Your task to perform on an android device: toggle notification dots Image 0: 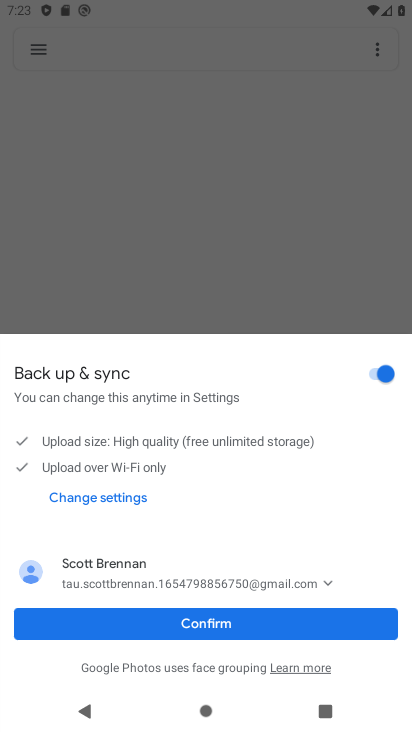
Step 0: press home button
Your task to perform on an android device: toggle notification dots Image 1: 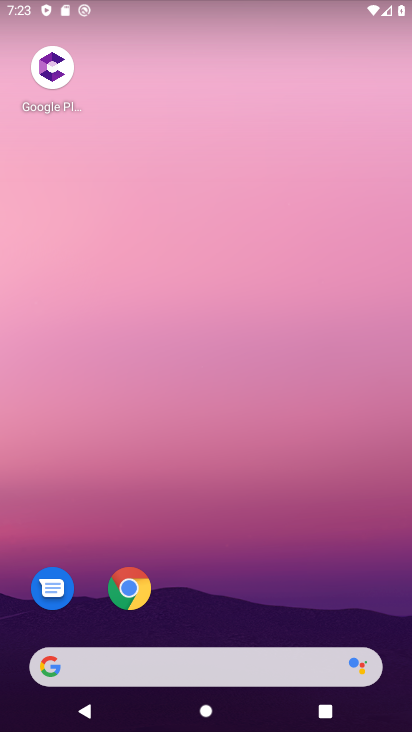
Step 1: drag from (252, 618) to (249, 310)
Your task to perform on an android device: toggle notification dots Image 2: 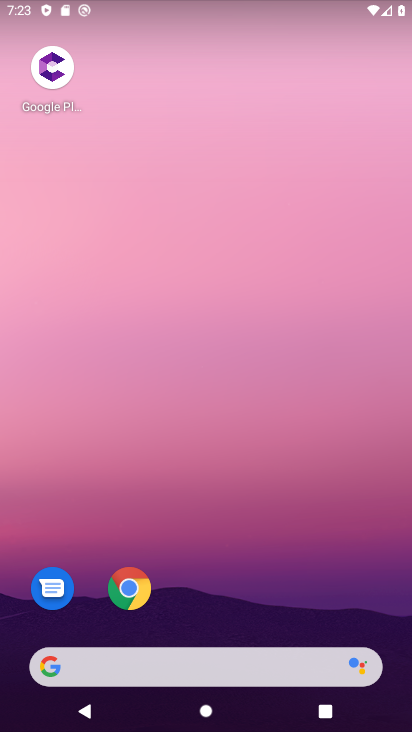
Step 2: drag from (228, 561) to (232, 433)
Your task to perform on an android device: toggle notification dots Image 3: 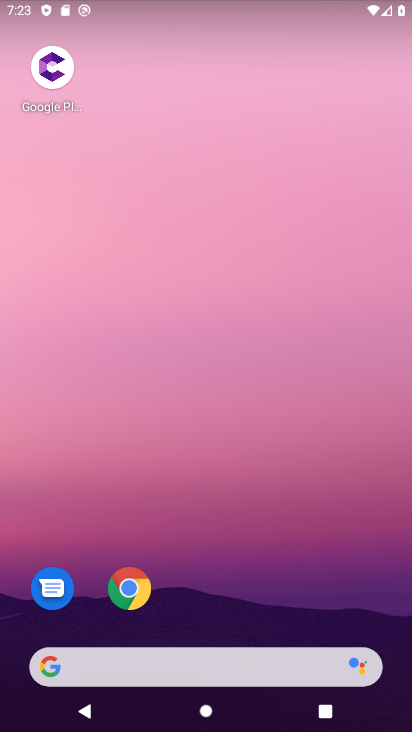
Step 3: drag from (264, 637) to (280, 175)
Your task to perform on an android device: toggle notification dots Image 4: 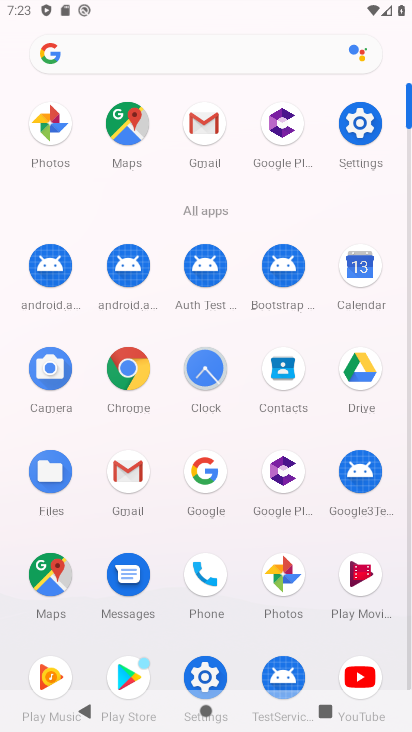
Step 4: click (368, 110)
Your task to perform on an android device: toggle notification dots Image 5: 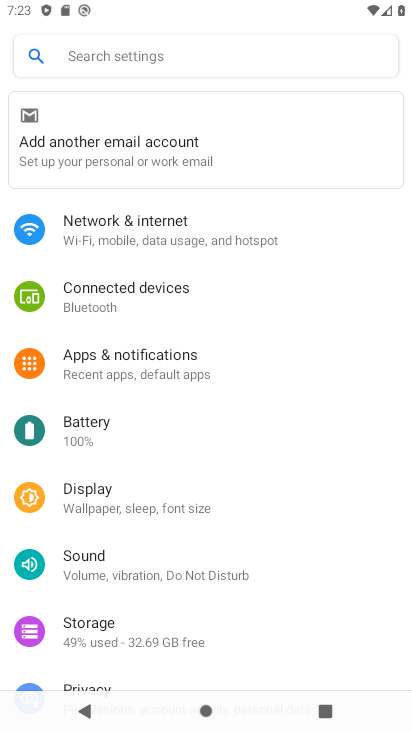
Step 5: click (205, 41)
Your task to perform on an android device: toggle notification dots Image 6: 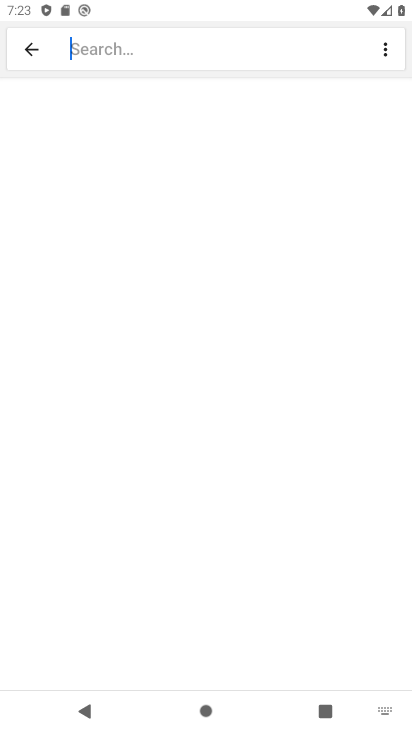
Step 6: type " notification dot "
Your task to perform on an android device: toggle notification dots Image 7: 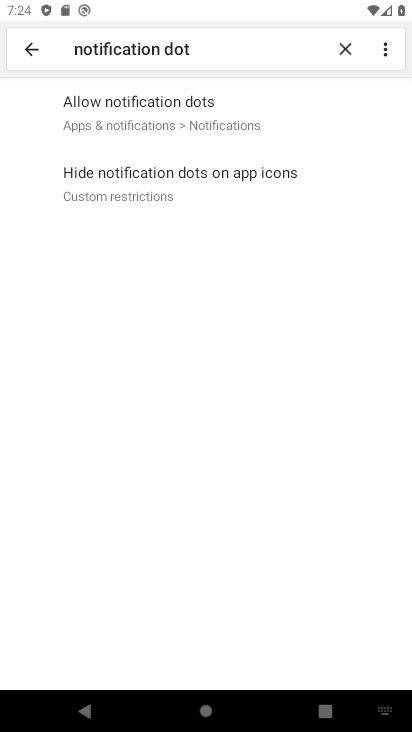
Step 7: click (148, 105)
Your task to perform on an android device: toggle notification dots Image 8: 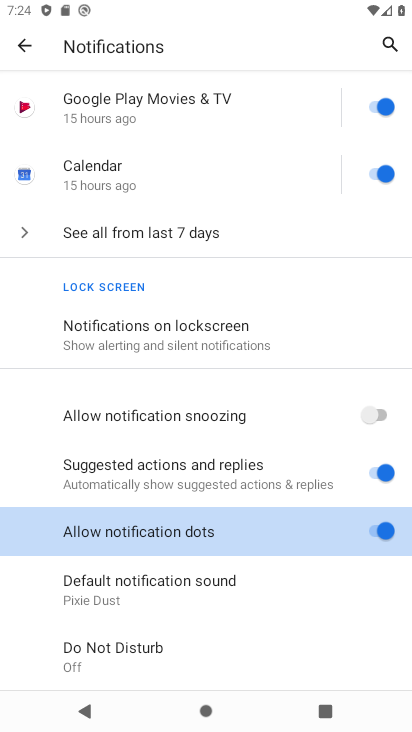
Step 8: click (384, 524)
Your task to perform on an android device: toggle notification dots Image 9: 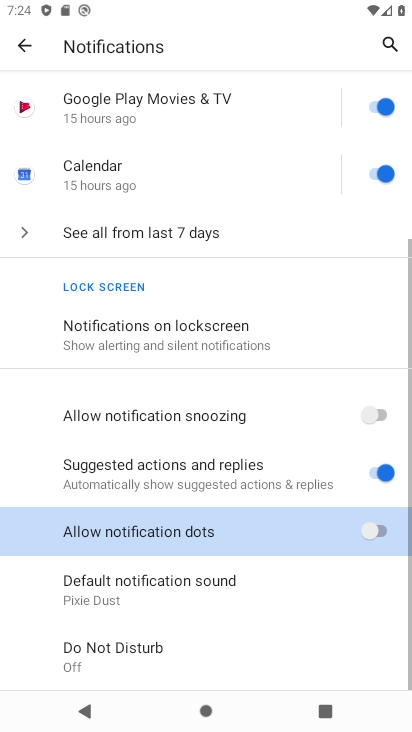
Step 9: task complete